Your task to perform on an android device: toggle wifi Image 0: 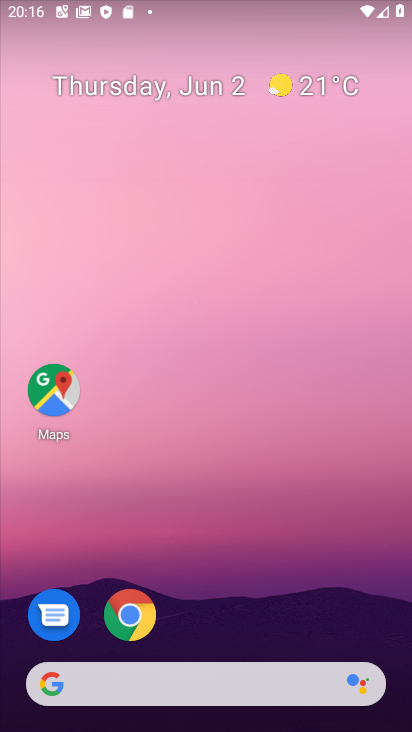
Step 0: task complete